Your task to perform on an android device: Set an alarm for 8pm Image 0: 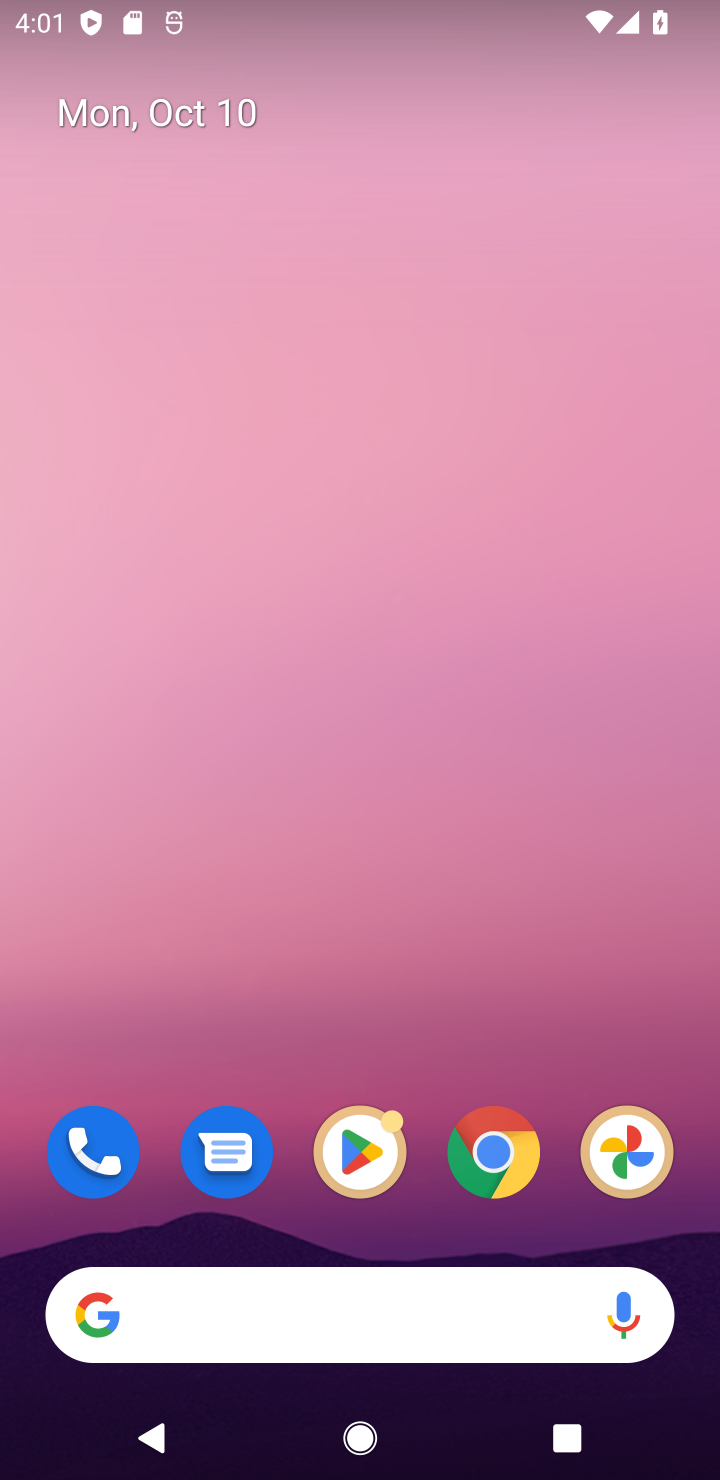
Step 0: drag from (343, 1301) to (378, 591)
Your task to perform on an android device: Set an alarm for 8pm Image 1: 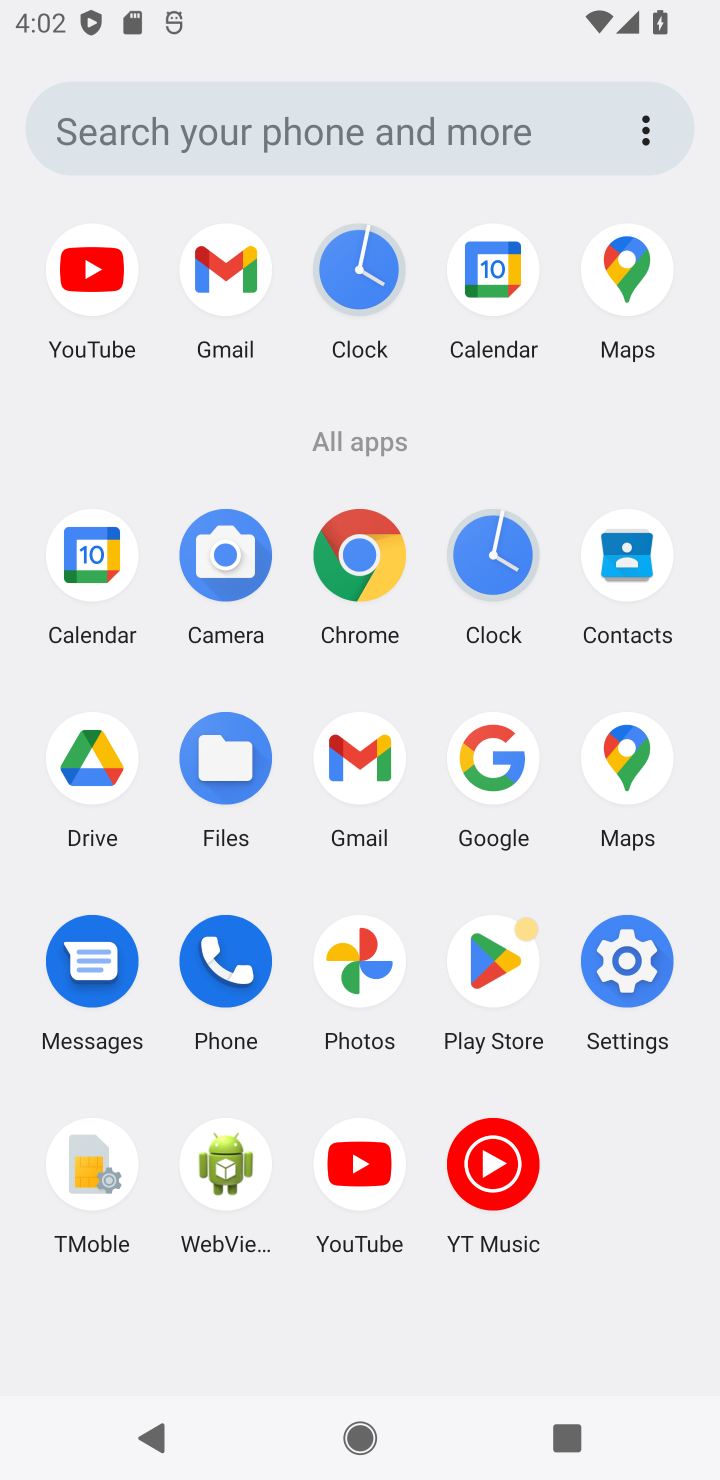
Step 1: click (496, 558)
Your task to perform on an android device: Set an alarm for 8pm Image 2: 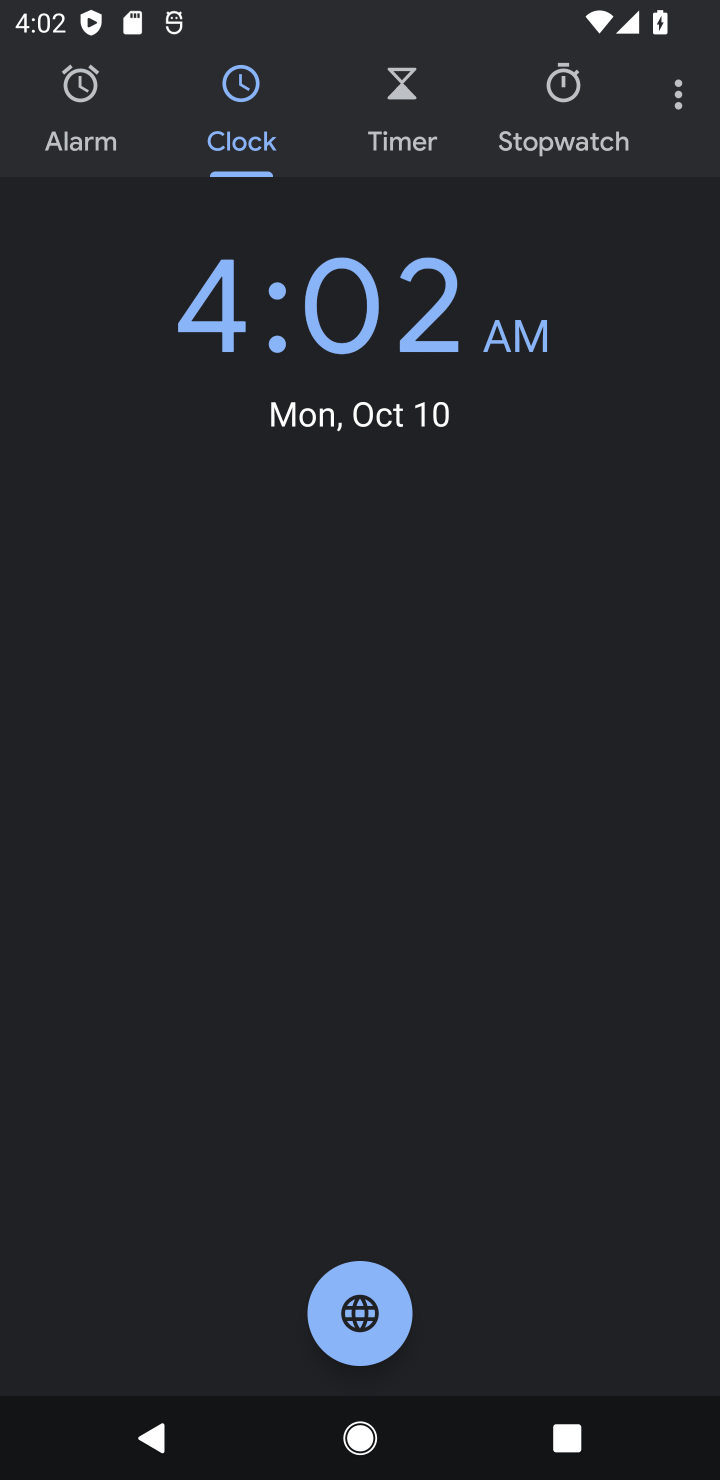
Step 2: click (87, 77)
Your task to perform on an android device: Set an alarm for 8pm Image 3: 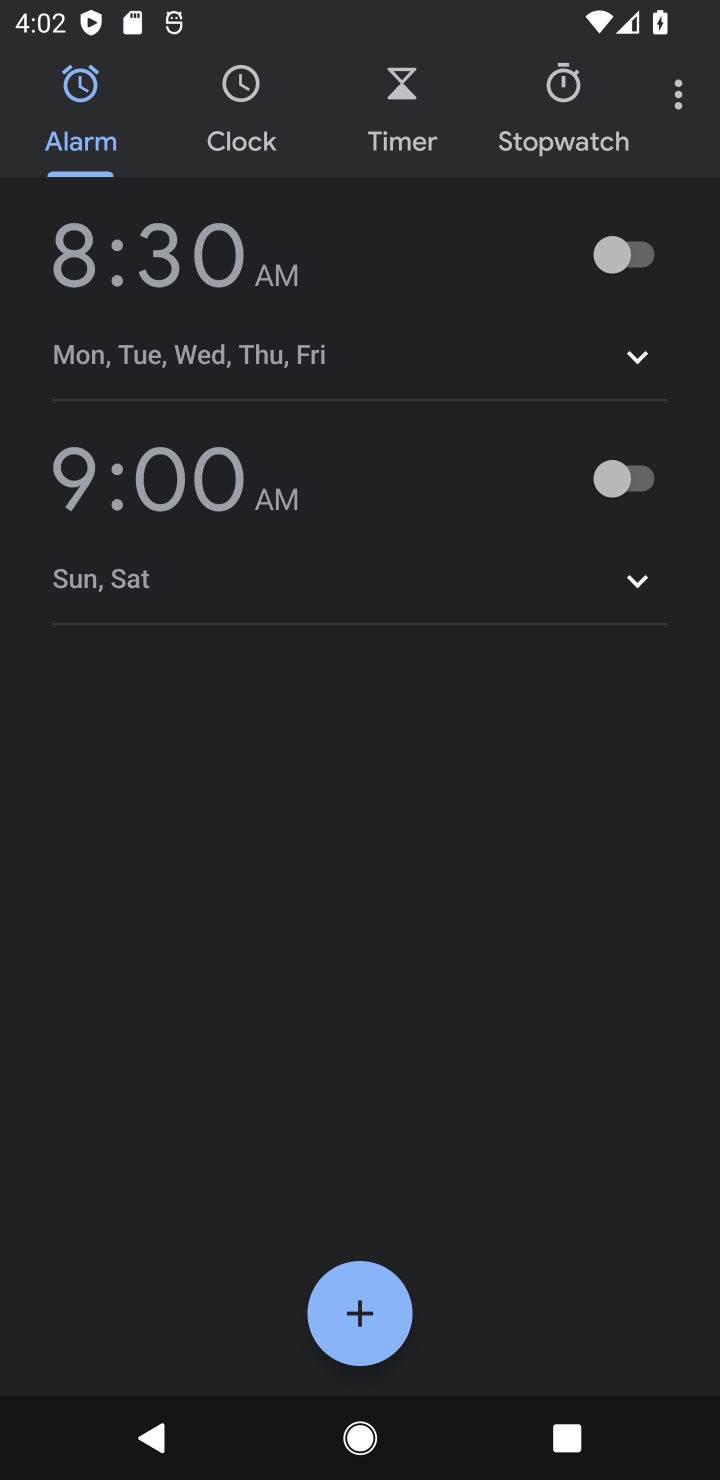
Step 3: click (362, 1316)
Your task to perform on an android device: Set an alarm for 8pm Image 4: 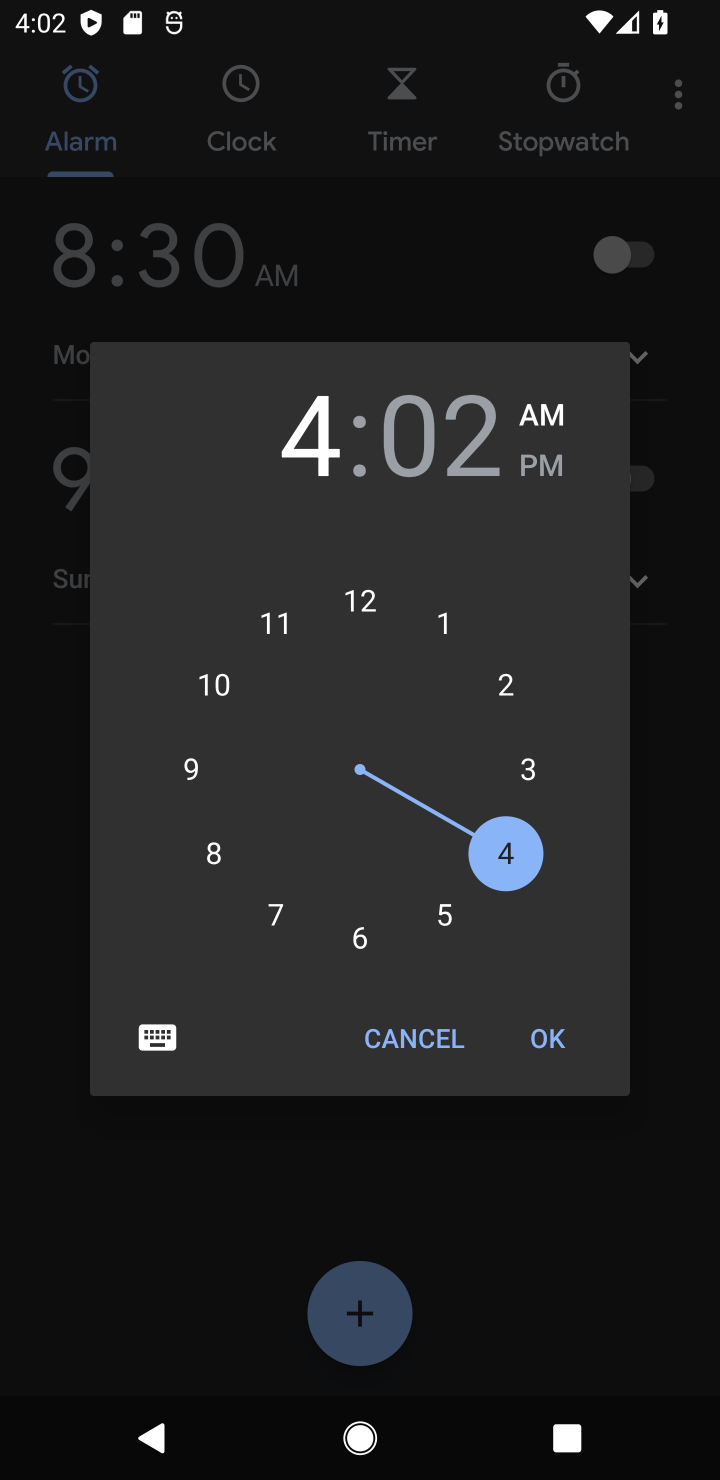
Step 4: click (217, 863)
Your task to perform on an android device: Set an alarm for 8pm Image 5: 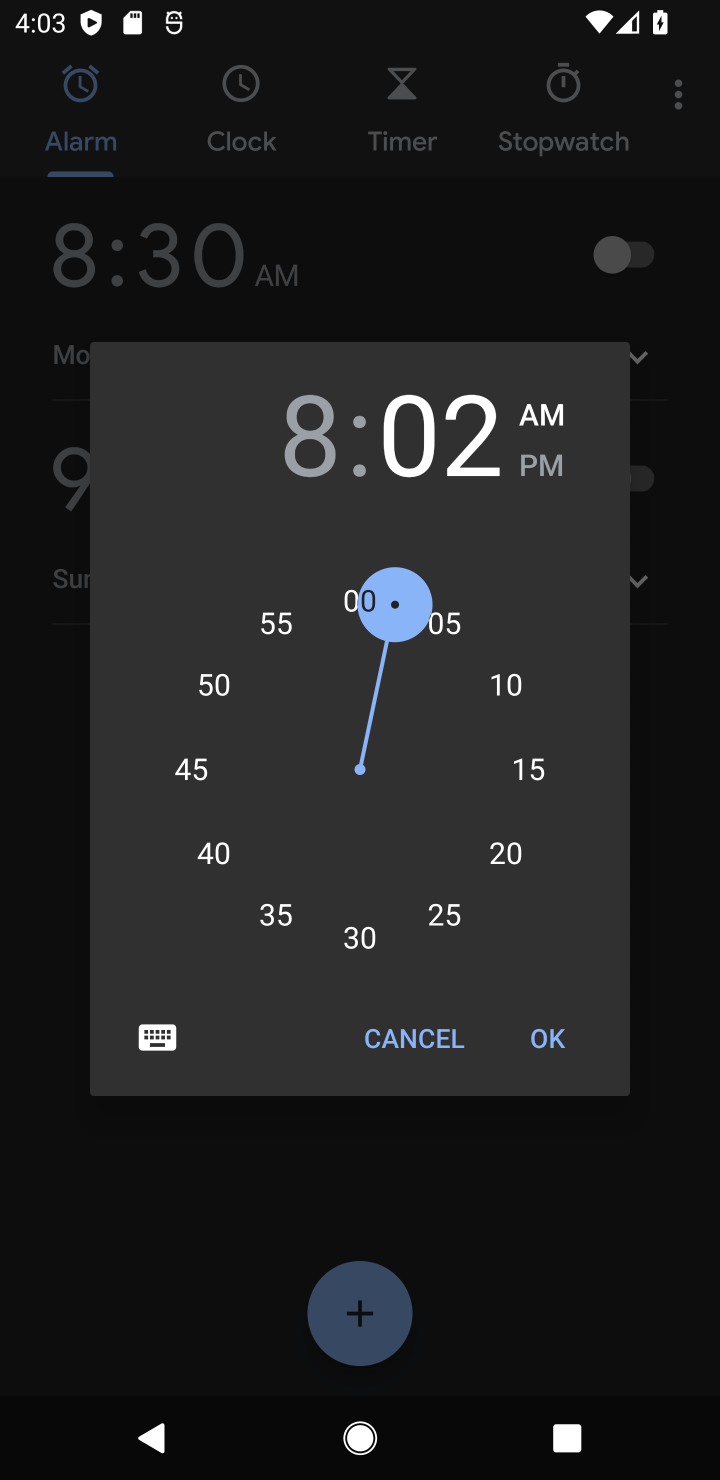
Step 5: click (351, 607)
Your task to perform on an android device: Set an alarm for 8pm Image 6: 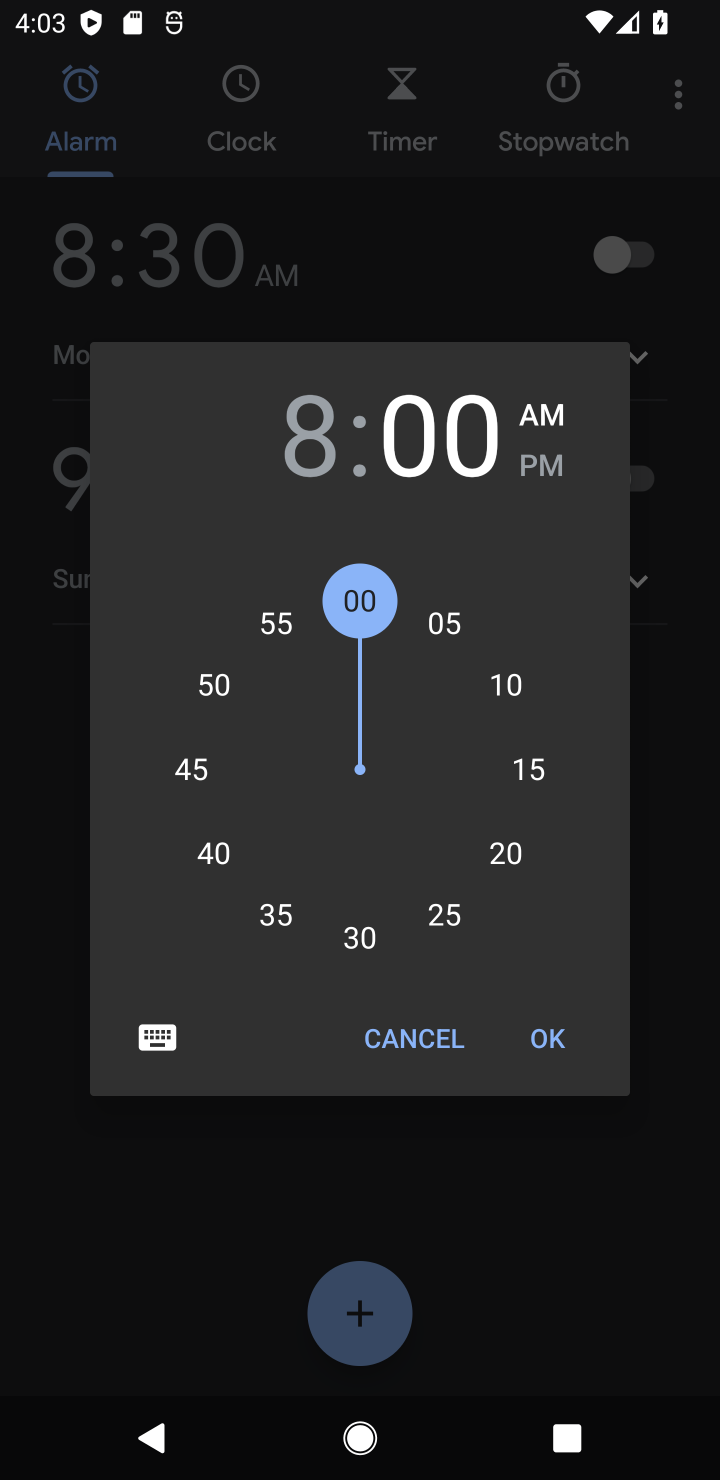
Step 6: click (536, 464)
Your task to perform on an android device: Set an alarm for 8pm Image 7: 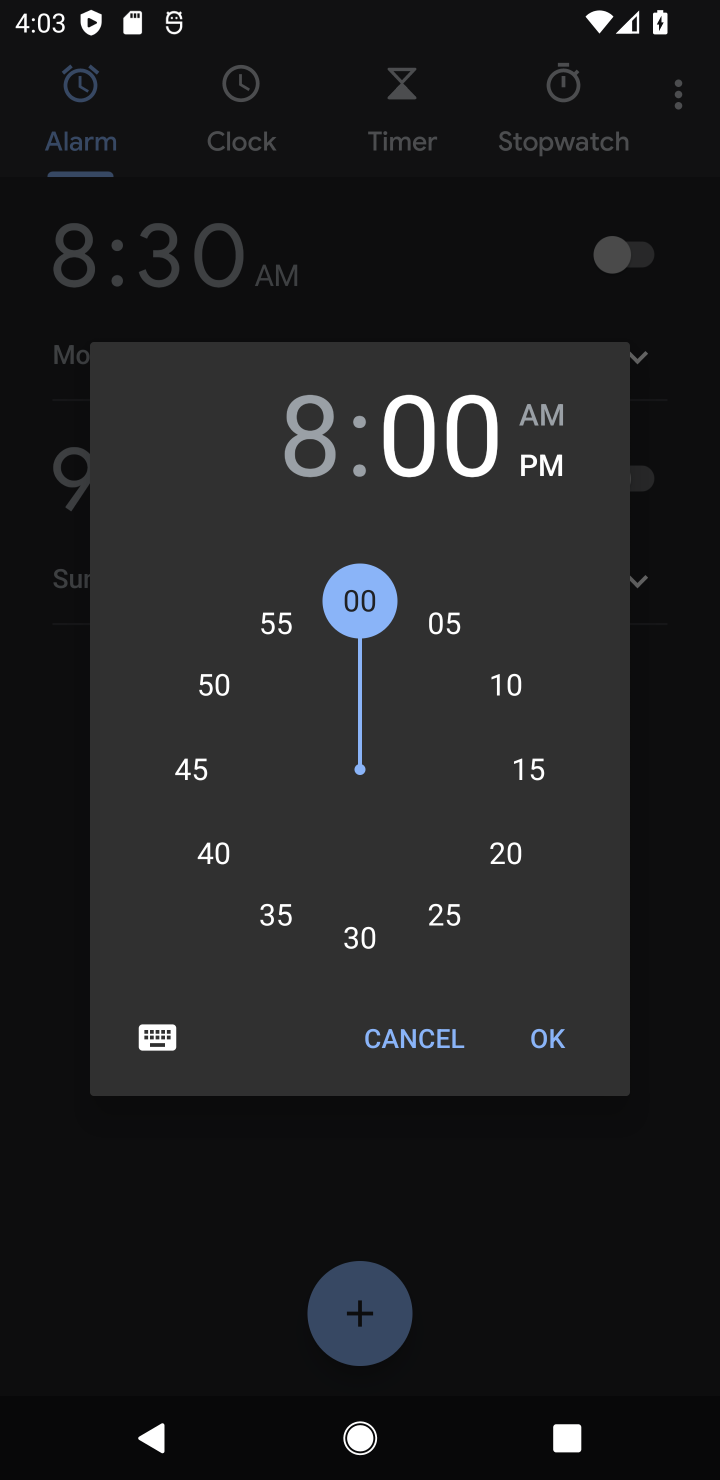
Step 7: click (549, 1025)
Your task to perform on an android device: Set an alarm for 8pm Image 8: 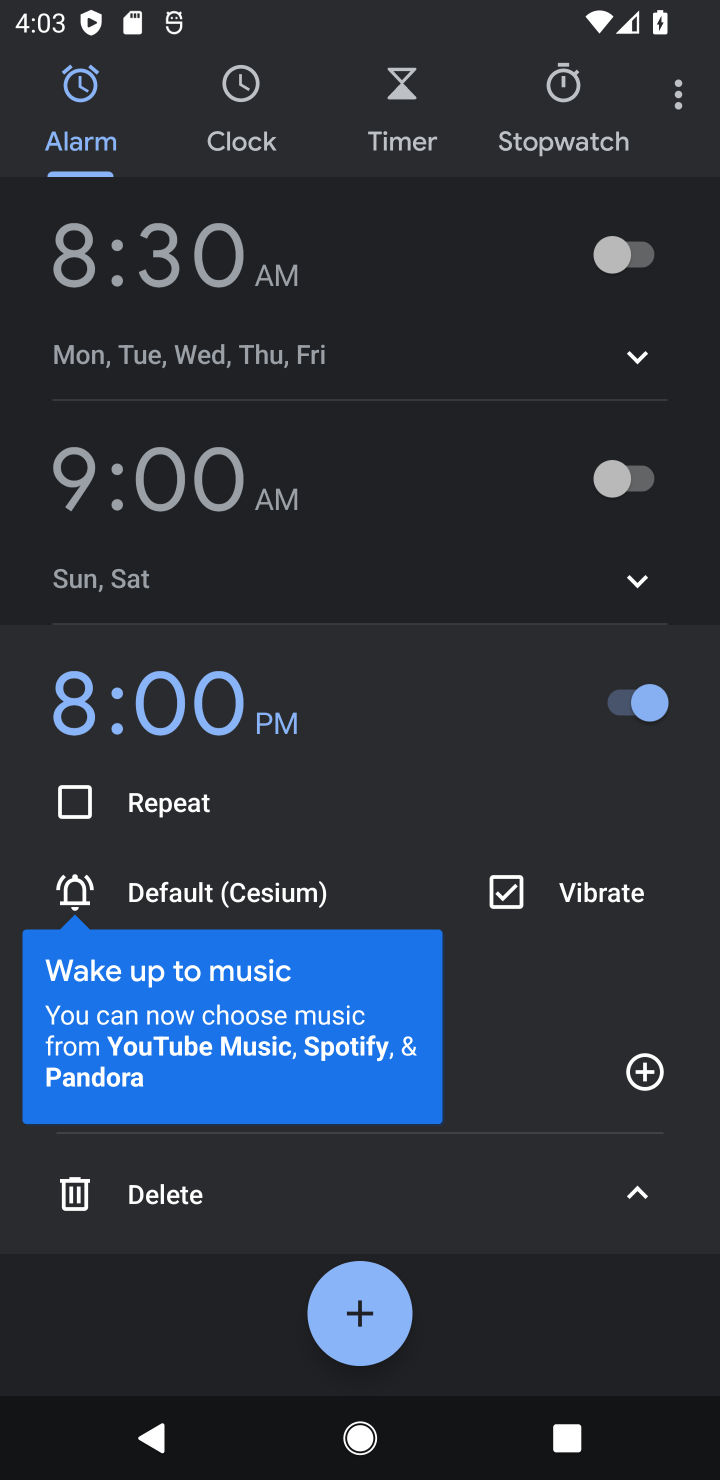
Step 8: task complete